Your task to perform on an android device: What's the weather today? Image 0: 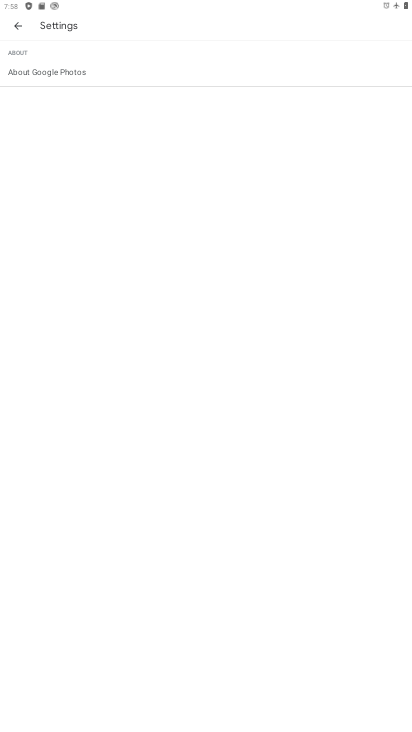
Step 0: press home button
Your task to perform on an android device: What's the weather today? Image 1: 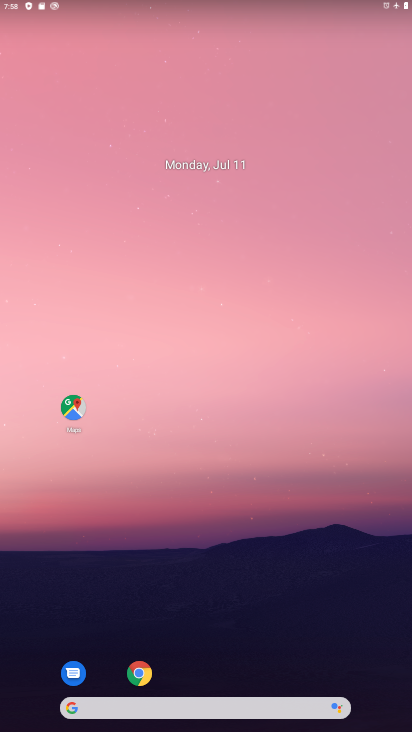
Step 1: drag from (294, 554) to (248, 131)
Your task to perform on an android device: What's the weather today? Image 2: 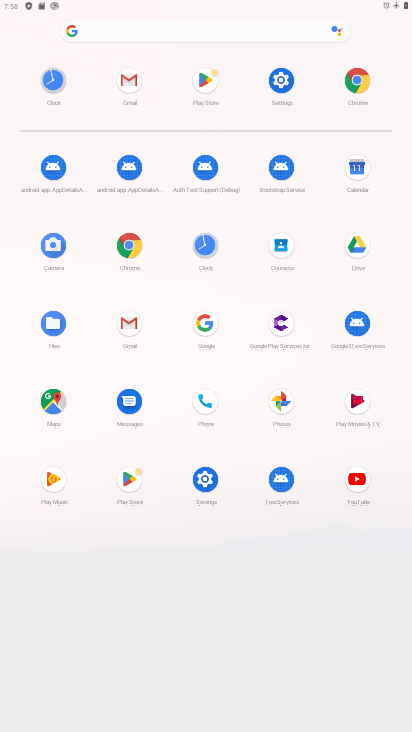
Step 2: click (127, 241)
Your task to perform on an android device: What's the weather today? Image 3: 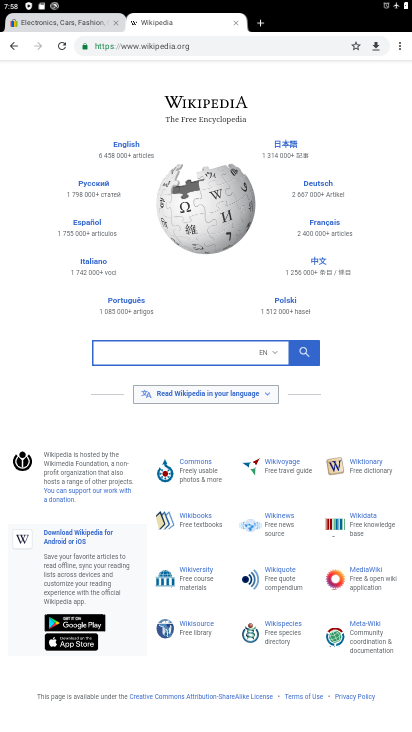
Step 3: click (154, 49)
Your task to perform on an android device: What's the weather today? Image 4: 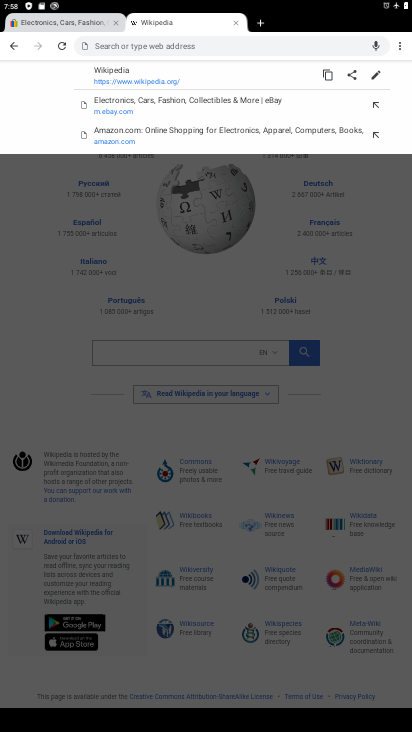
Step 4: type "weather"
Your task to perform on an android device: What's the weather today? Image 5: 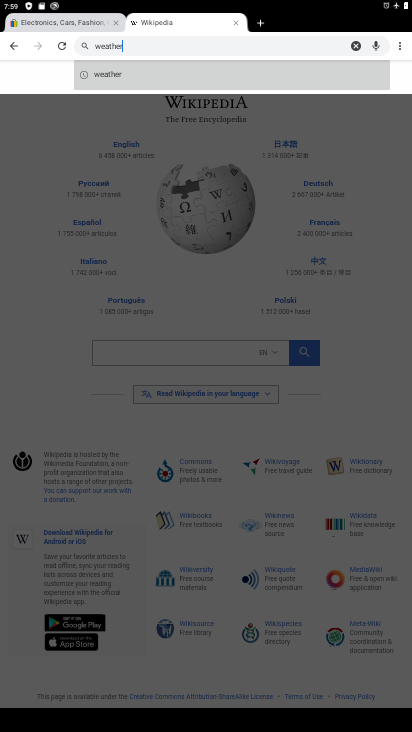
Step 5: click (110, 70)
Your task to perform on an android device: What's the weather today? Image 6: 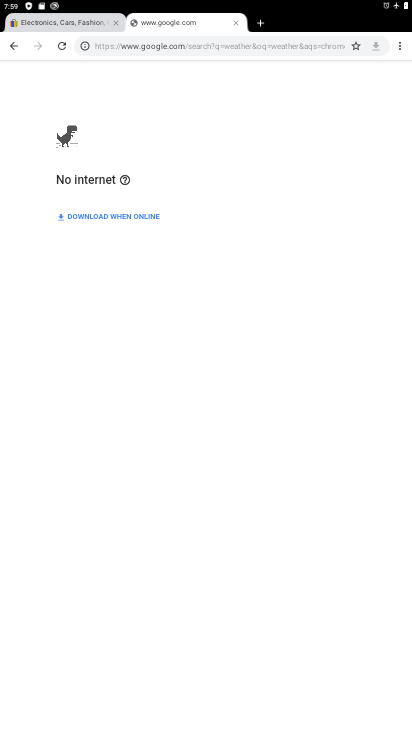
Step 6: task complete